Your task to perform on an android device: change keyboard looks Image 0: 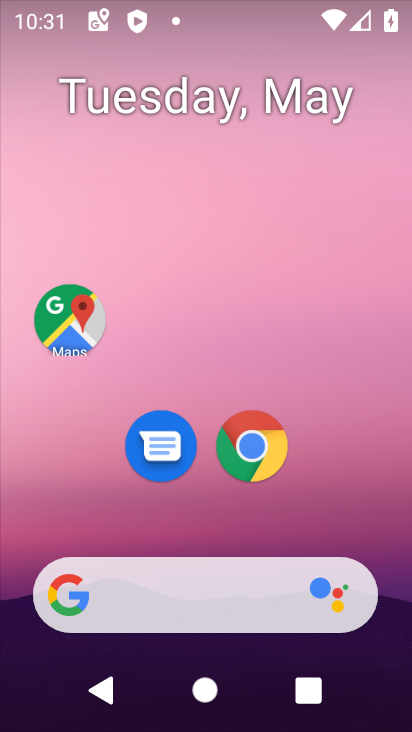
Step 0: drag from (210, 513) to (258, 25)
Your task to perform on an android device: change keyboard looks Image 1: 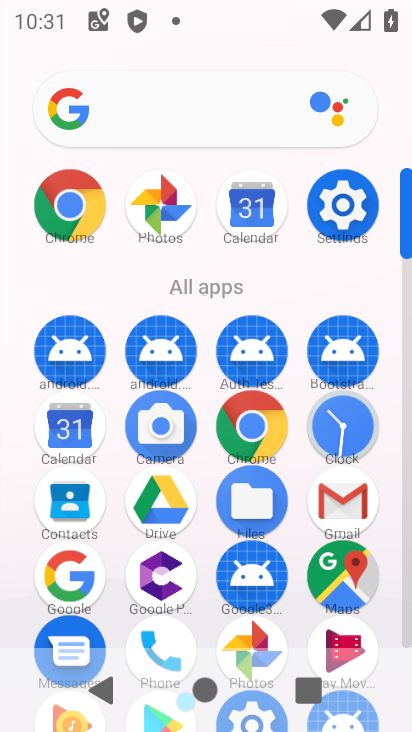
Step 1: click (351, 211)
Your task to perform on an android device: change keyboard looks Image 2: 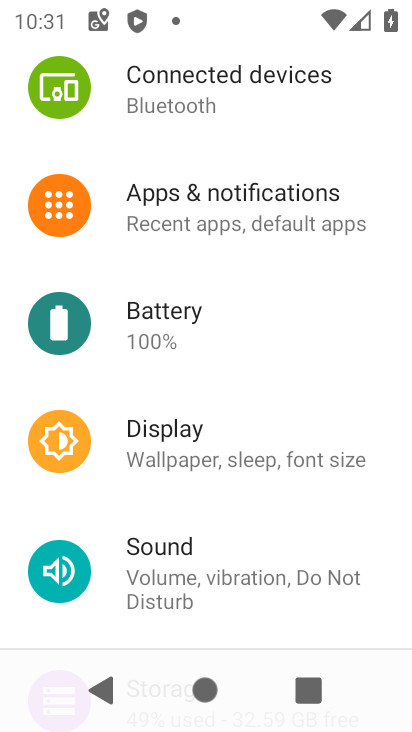
Step 2: drag from (198, 556) to (255, 114)
Your task to perform on an android device: change keyboard looks Image 3: 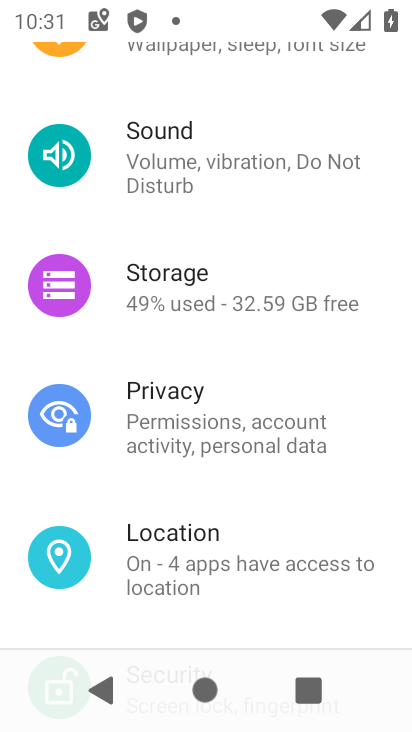
Step 3: drag from (201, 541) to (263, 0)
Your task to perform on an android device: change keyboard looks Image 4: 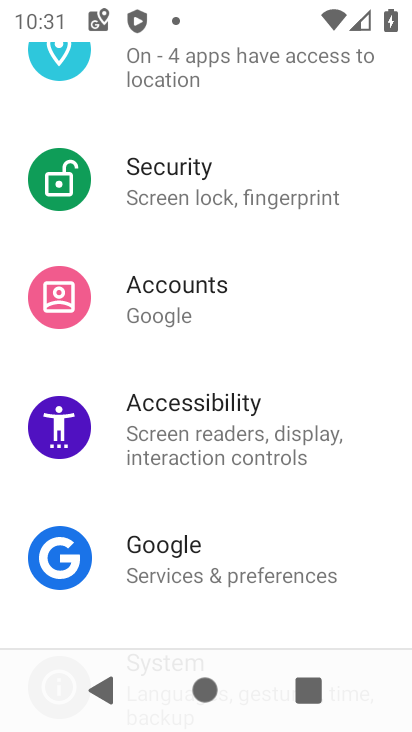
Step 4: drag from (251, 544) to (258, 246)
Your task to perform on an android device: change keyboard looks Image 5: 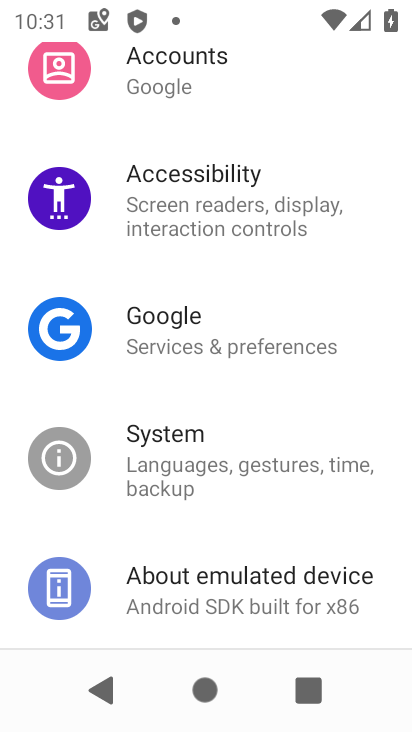
Step 5: click (225, 473)
Your task to perform on an android device: change keyboard looks Image 6: 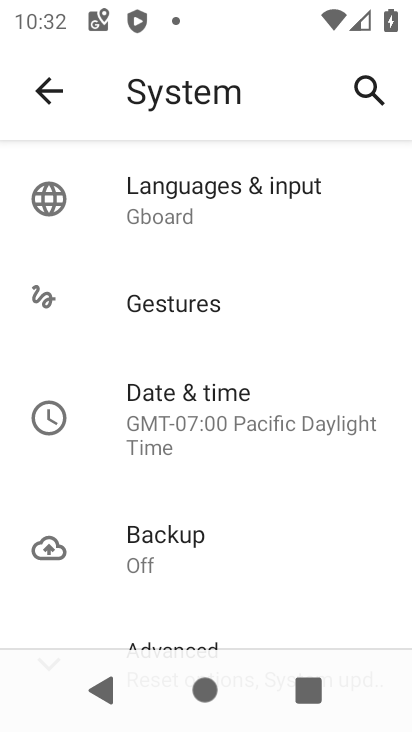
Step 6: click (216, 193)
Your task to perform on an android device: change keyboard looks Image 7: 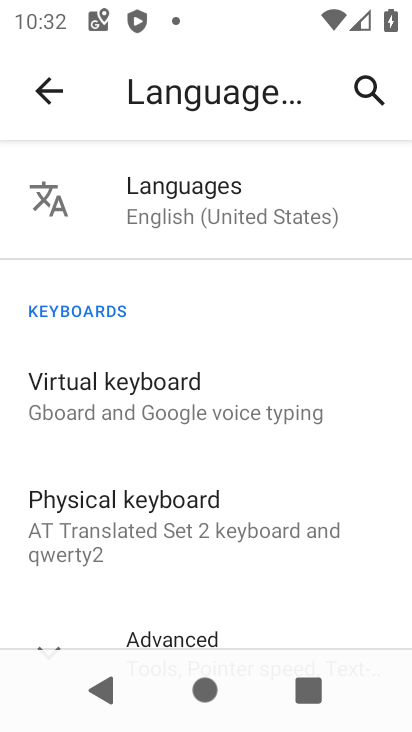
Step 7: click (200, 407)
Your task to perform on an android device: change keyboard looks Image 8: 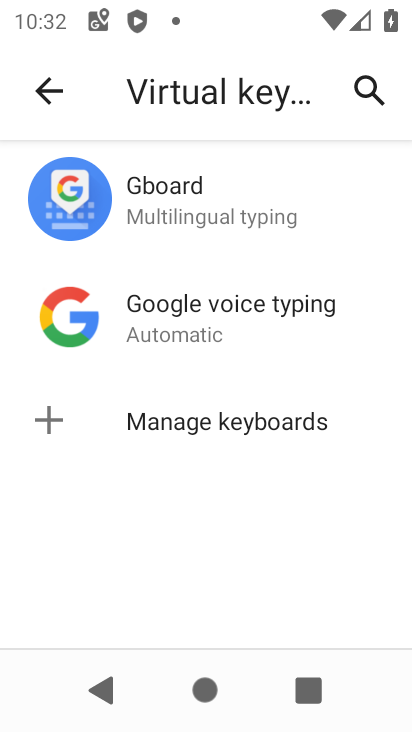
Step 8: click (195, 209)
Your task to perform on an android device: change keyboard looks Image 9: 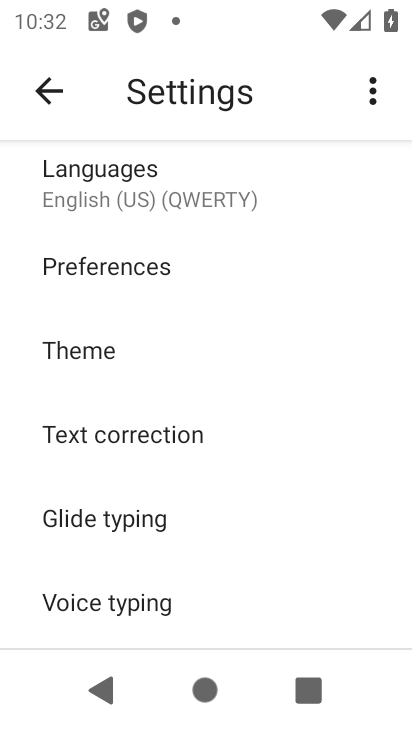
Step 9: click (90, 359)
Your task to perform on an android device: change keyboard looks Image 10: 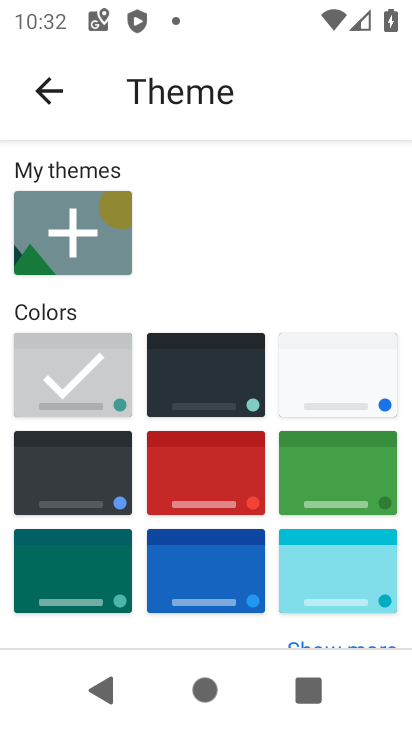
Step 10: click (201, 380)
Your task to perform on an android device: change keyboard looks Image 11: 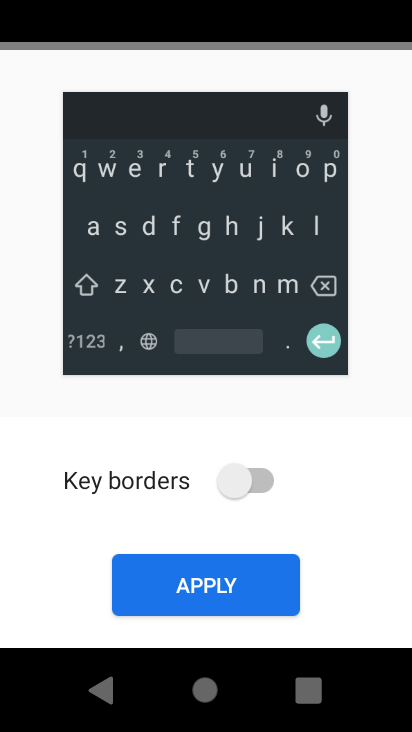
Step 11: click (196, 609)
Your task to perform on an android device: change keyboard looks Image 12: 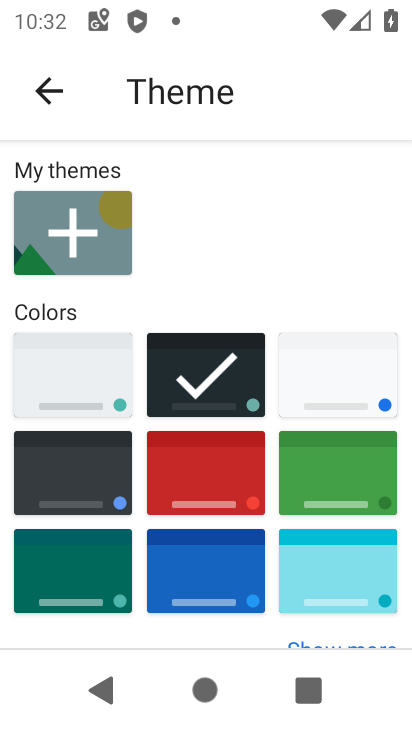
Step 12: task complete